Your task to perform on an android device: see tabs open on other devices in the chrome app Image 0: 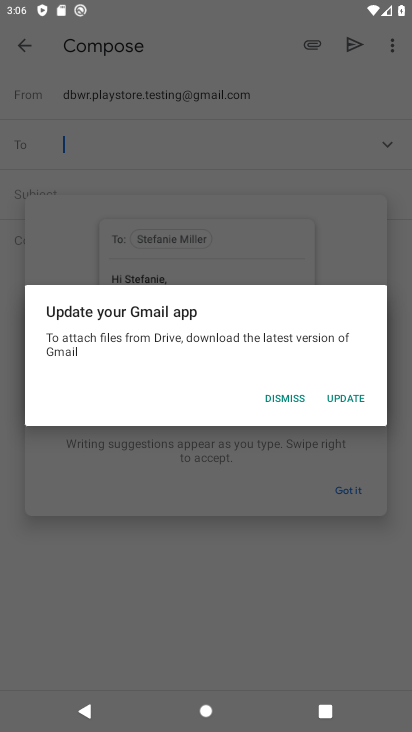
Step 0: press home button
Your task to perform on an android device: see tabs open on other devices in the chrome app Image 1: 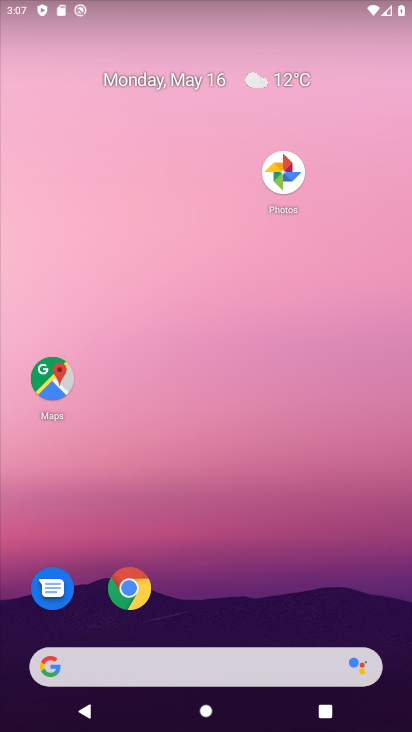
Step 1: click (119, 584)
Your task to perform on an android device: see tabs open on other devices in the chrome app Image 2: 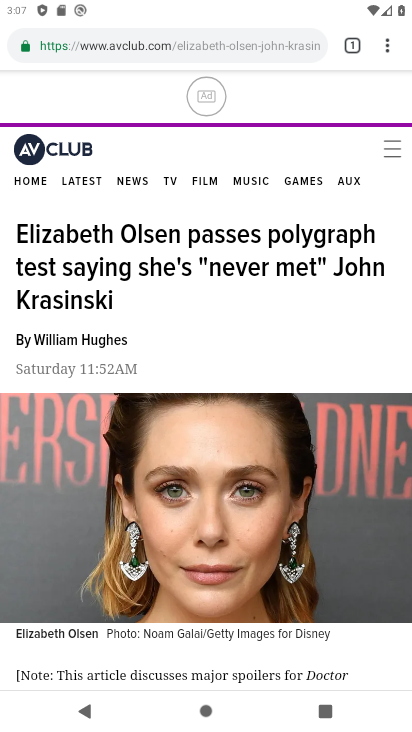
Step 2: click (393, 41)
Your task to perform on an android device: see tabs open on other devices in the chrome app Image 3: 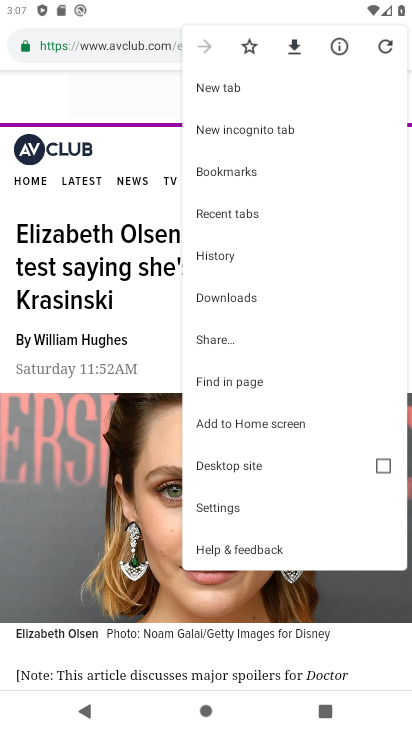
Step 3: click (221, 507)
Your task to perform on an android device: see tabs open on other devices in the chrome app Image 4: 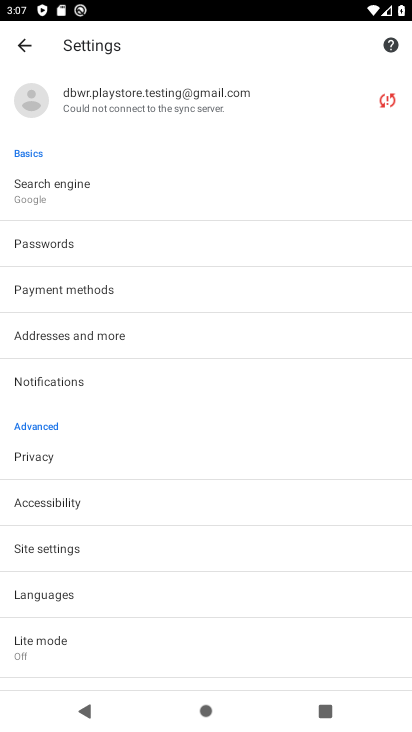
Step 4: click (24, 43)
Your task to perform on an android device: see tabs open on other devices in the chrome app Image 5: 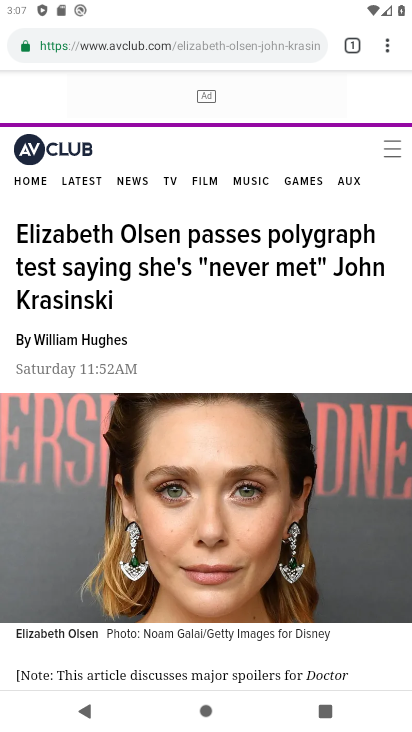
Step 5: click (379, 46)
Your task to perform on an android device: see tabs open on other devices in the chrome app Image 6: 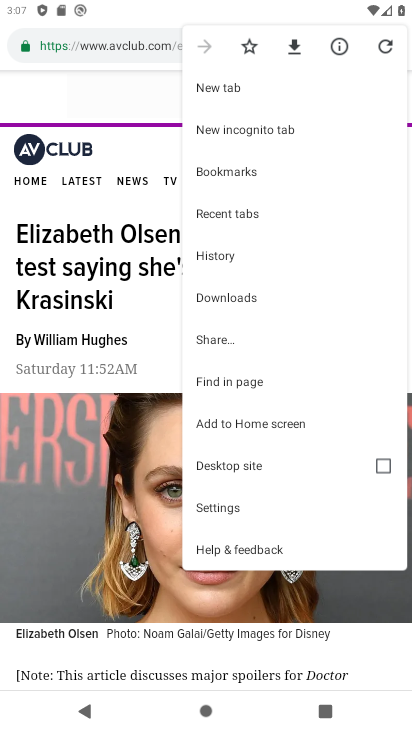
Step 6: click (259, 222)
Your task to perform on an android device: see tabs open on other devices in the chrome app Image 7: 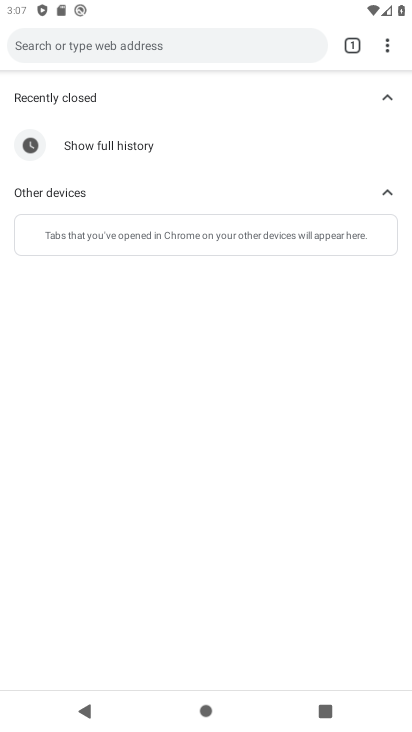
Step 7: task complete